Your task to perform on an android device: What is the speed of light? Image 0: 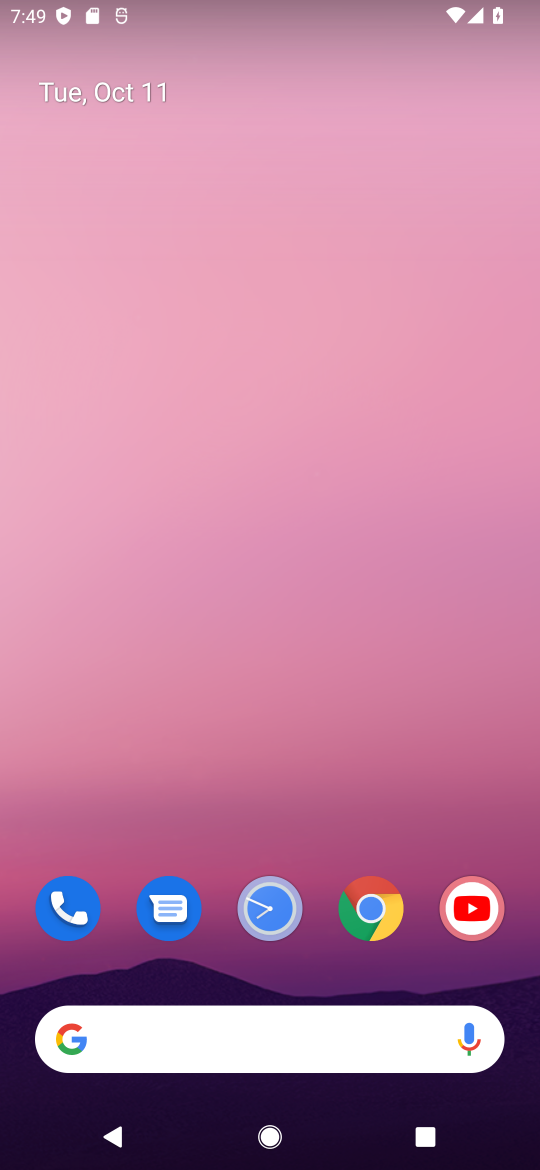
Step 0: click (214, 1053)
Your task to perform on an android device: What is the speed of light? Image 1: 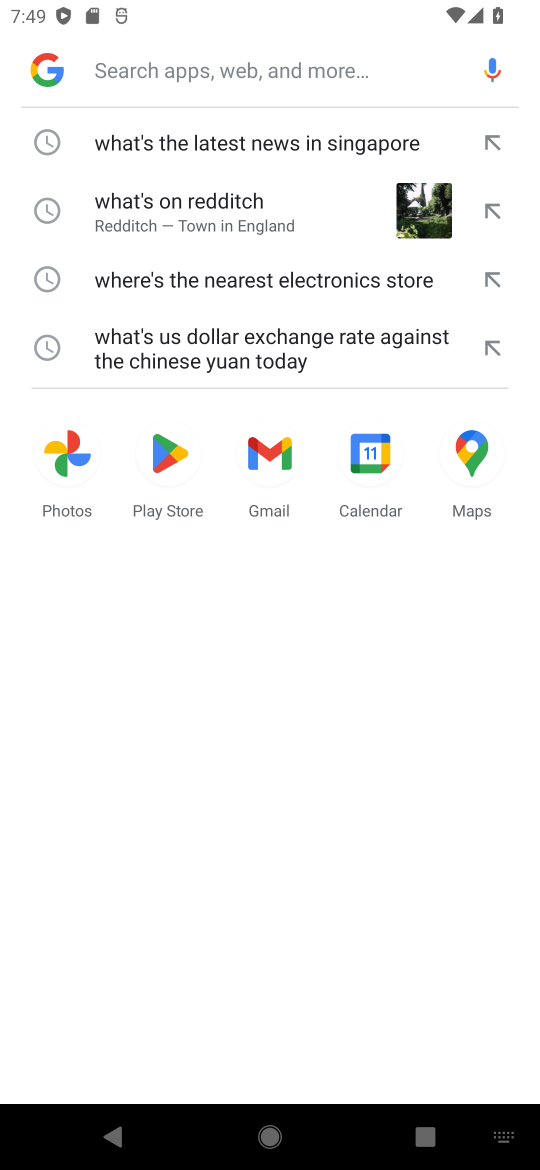
Step 1: type "What is the speed of light?"
Your task to perform on an android device: What is the speed of light? Image 2: 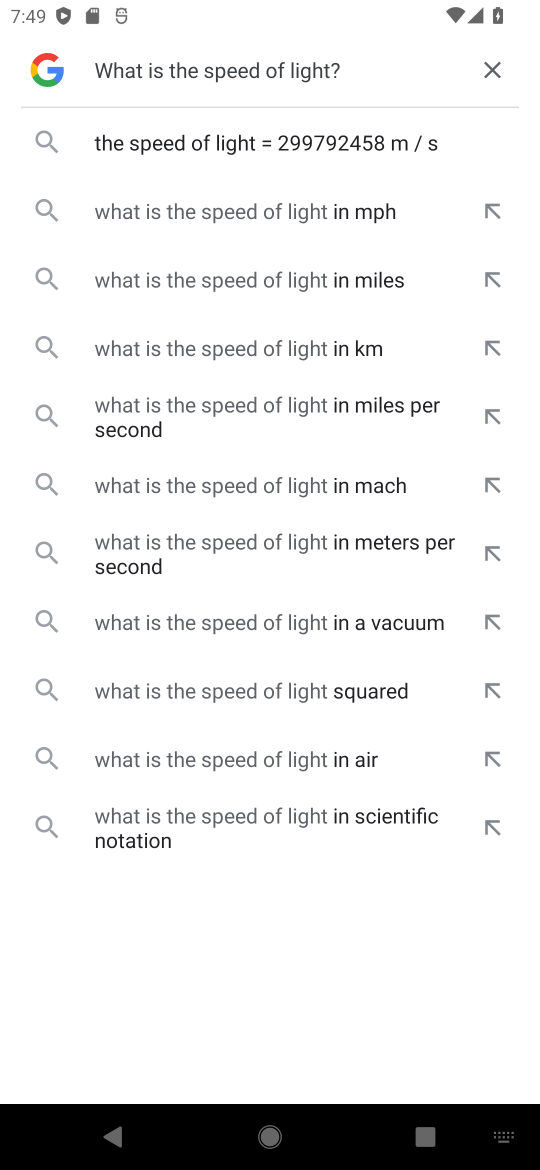
Step 2: click (212, 141)
Your task to perform on an android device: What is the speed of light? Image 3: 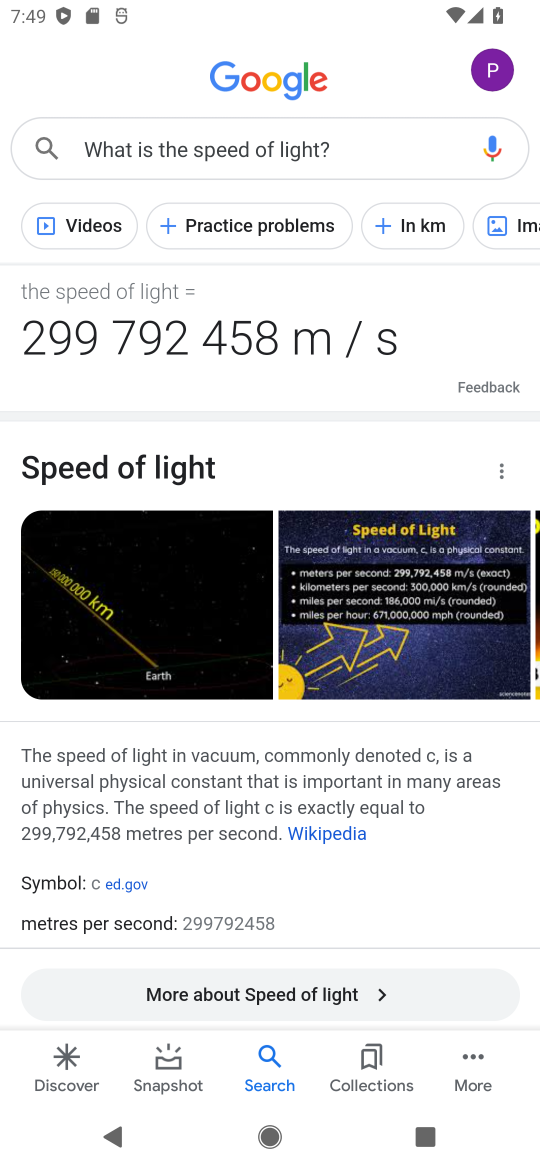
Step 3: task complete